Your task to perform on an android device: turn off smart reply in the gmail app Image 0: 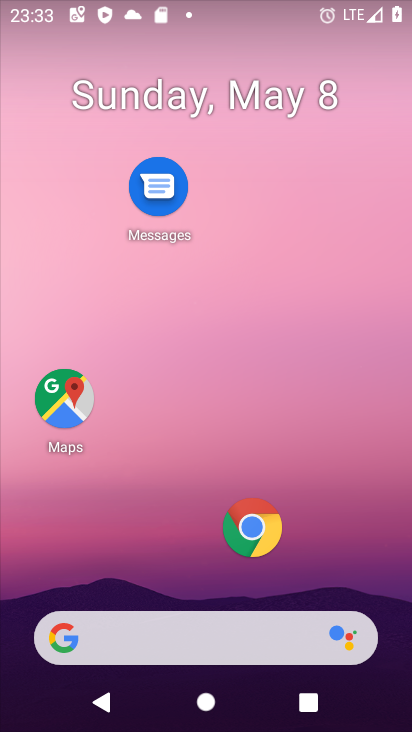
Step 0: drag from (177, 573) to (140, 36)
Your task to perform on an android device: turn off smart reply in the gmail app Image 1: 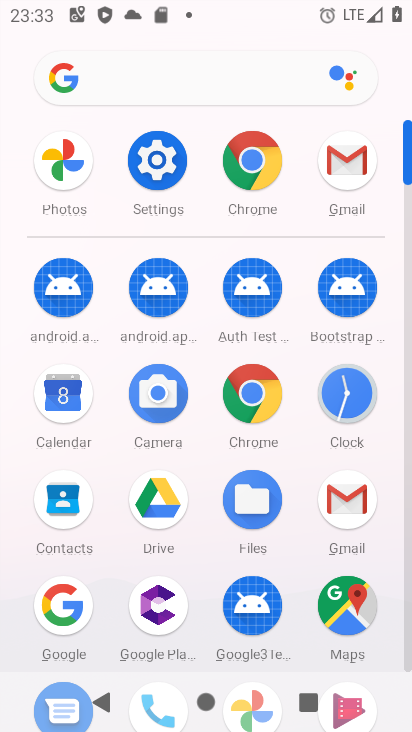
Step 1: click (341, 162)
Your task to perform on an android device: turn off smart reply in the gmail app Image 2: 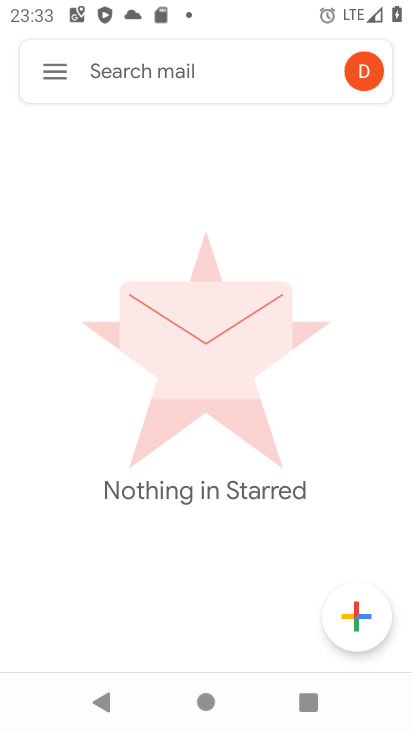
Step 2: click (44, 77)
Your task to perform on an android device: turn off smart reply in the gmail app Image 3: 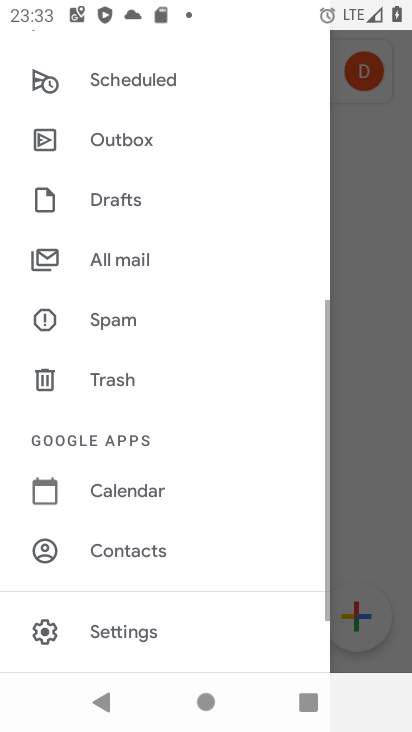
Step 3: click (135, 626)
Your task to perform on an android device: turn off smart reply in the gmail app Image 4: 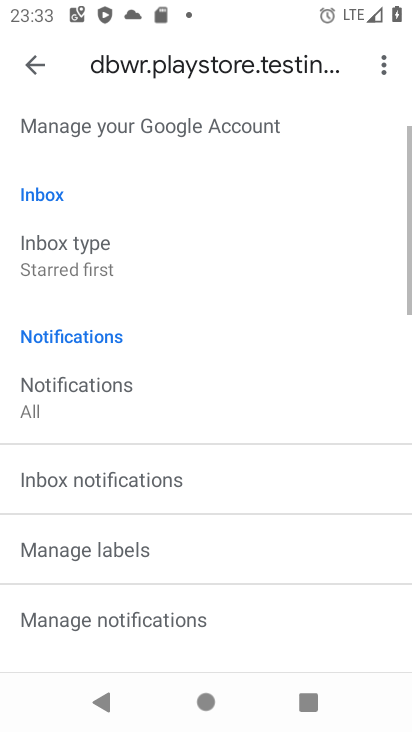
Step 4: drag from (179, 509) to (138, 258)
Your task to perform on an android device: turn off smart reply in the gmail app Image 5: 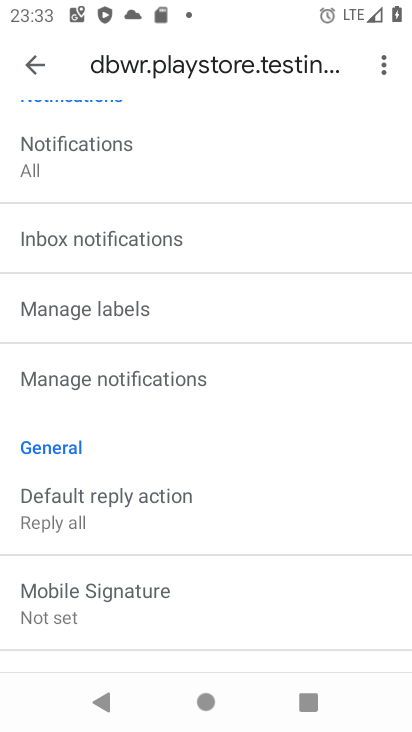
Step 5: drag from (190, 497) to (161, 151)
Your task to perform on an android device: turn off smart reply in the gmail app Image 6: 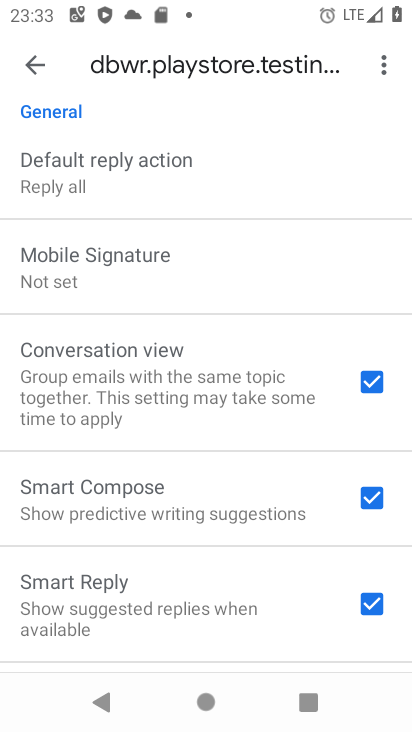
Step 6: click (358, 609)
Your task to perform on an android device: turn off smart reply in the gmail app Image 7: 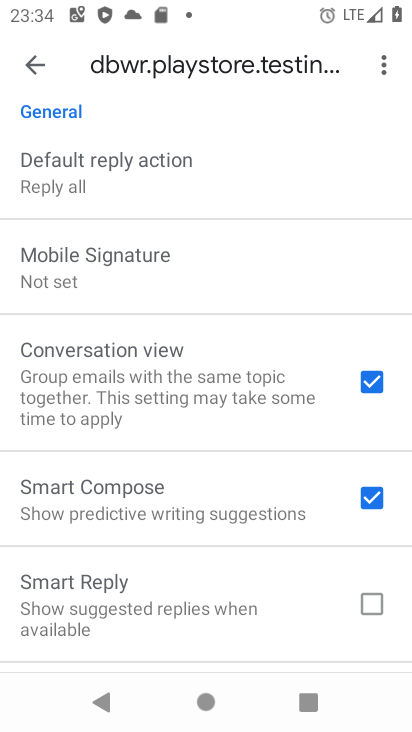
Step 7: task complete